Your task to perform on an android device: Go to wifi settings Image 0: 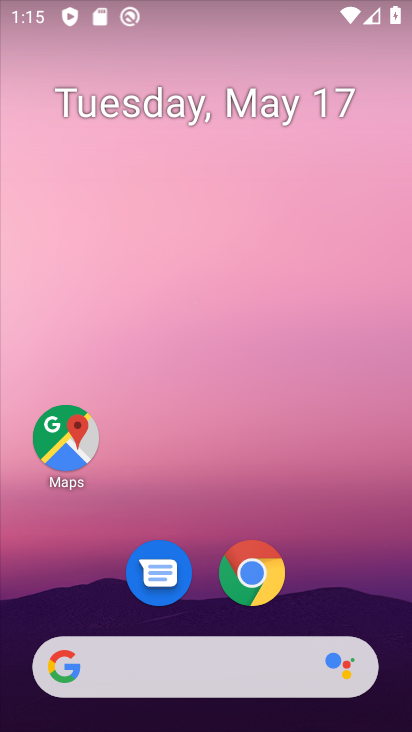
Step 0: drag from (324, 596) to (304, 322)
Your task to perform on an android device: Go to wifi settings Image 1: 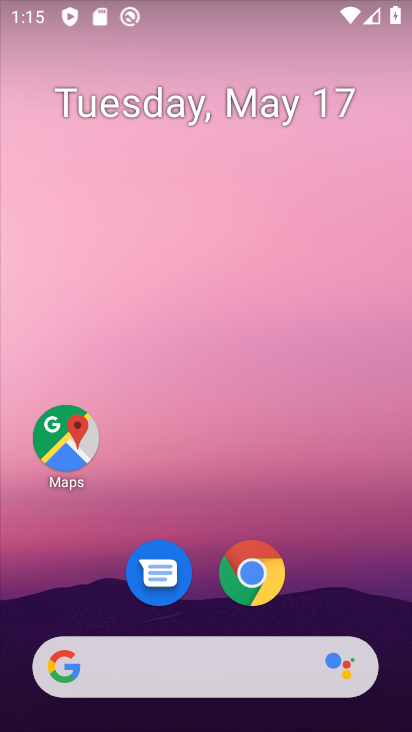
Step 1: drag from (353, 535) to (331, 283)
Your task to perform on an android device: Go to wifi settings Image 2: 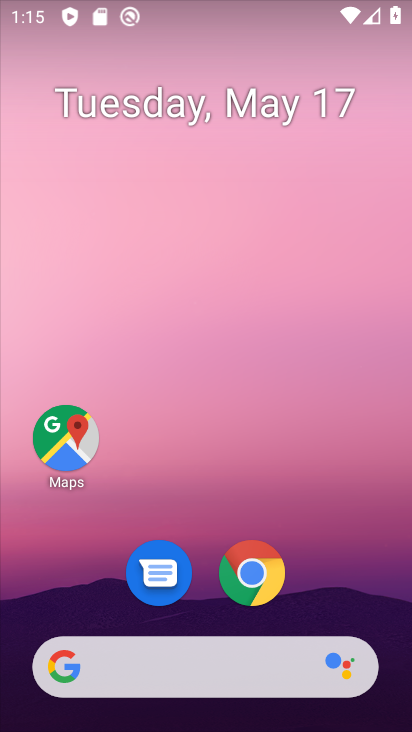
Step 2: drag from (318, 549) to (332, 76)
Your task to perform on an android device: Go to wifi settings Image 3: 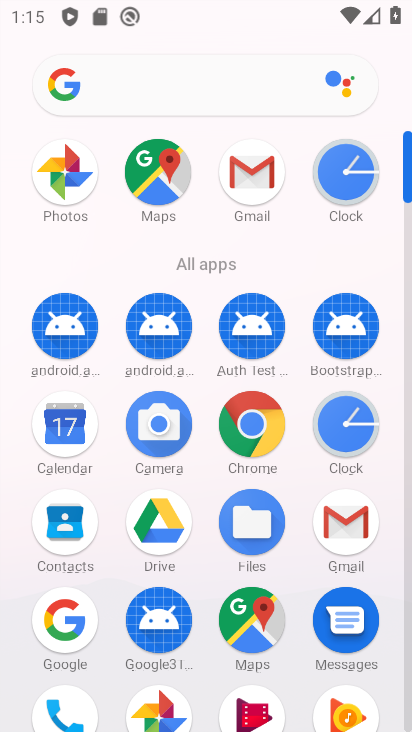
Step 3: drag from (294, 691) to (304, 247)
Your task to perform on an android device: Go to wifi settings Image 4: 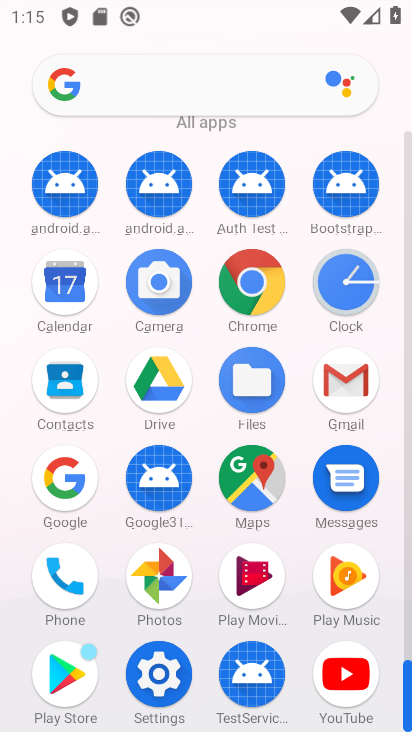
Step 4: click (148, 682)
Your task to perform on an android device: Go to wifi settings Image 5: 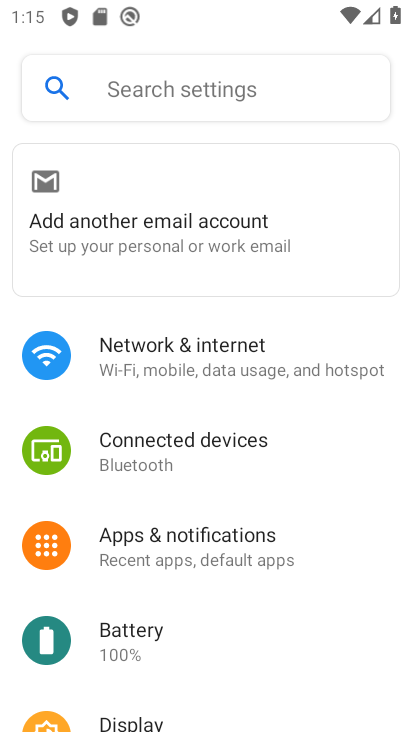
Step 5: click (197, 377)
Your task to perform on an android device: Go to wifi settings Image 6: 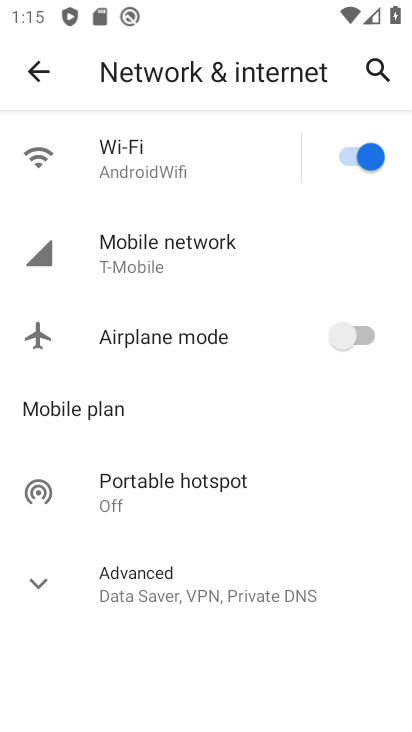
Step 6: click (142, 150)
Your task to perform on an android device: Go to wifi settings Image 7: 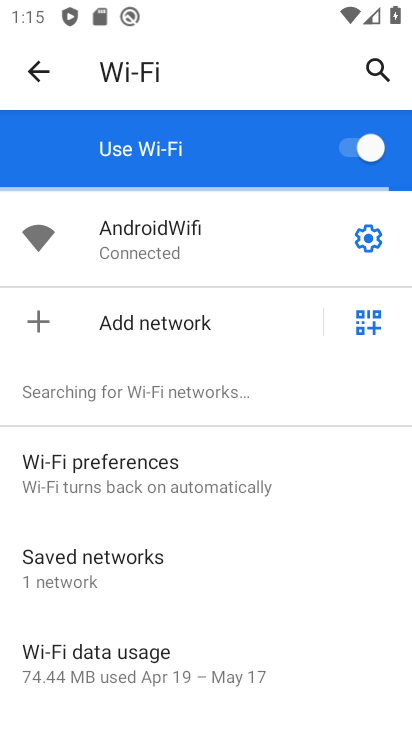
Step 7: task complete